Your task to perform on an android device: Toggle the flashlight Image 0: 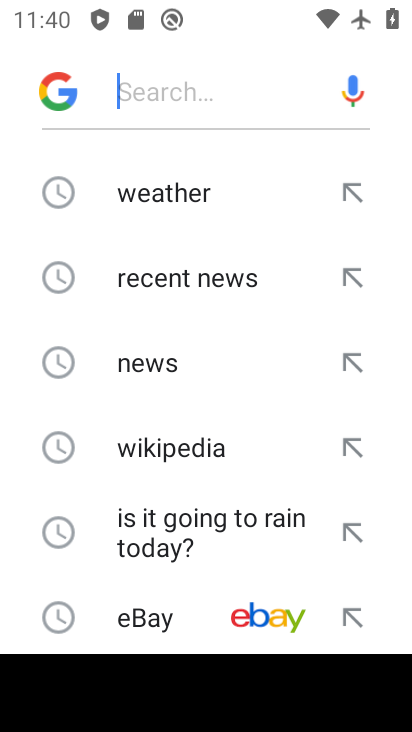
Step 0: press home button
Your task to perform on an android device: Toggle the flashlight Image 1: 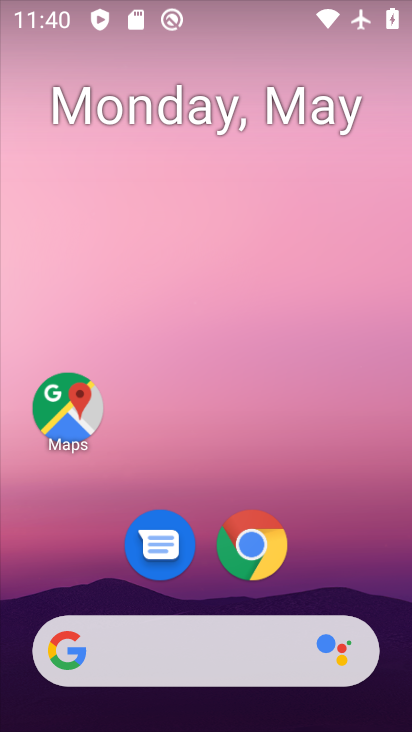
Step 1: drag from (334, 580) to (339, 23)
Your task to perform on an android device: Toggle the flashlight Image 2: 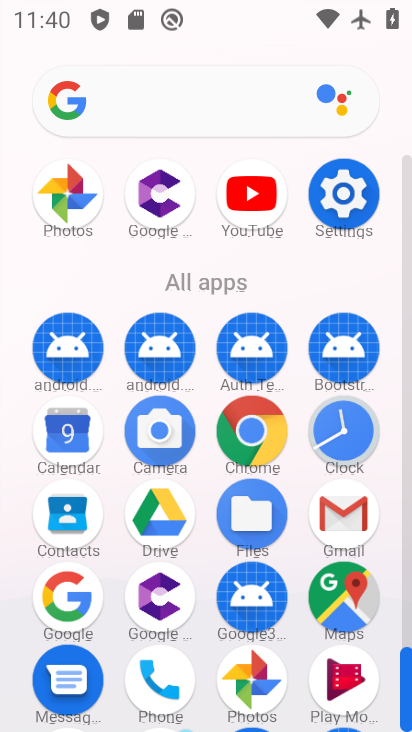
Step 2: click (348, 187)
Your task to perform on an android device: Toggle the flashlight Image 3: 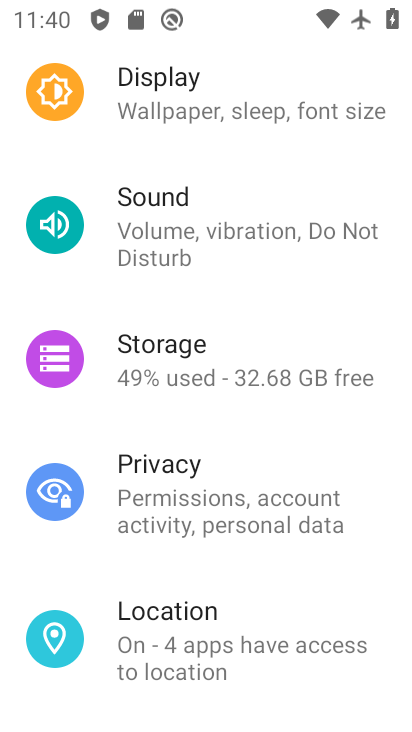
Step 3: task complete